Your task to perform on an android device: Do I have any events tomorrow? Image 0: 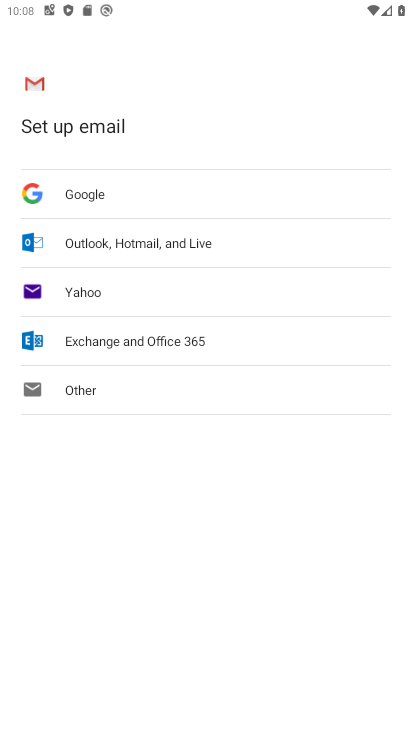
Step 0: press home button
Your task to perform on an android device: Do I have any events tomorrow? Image 1: 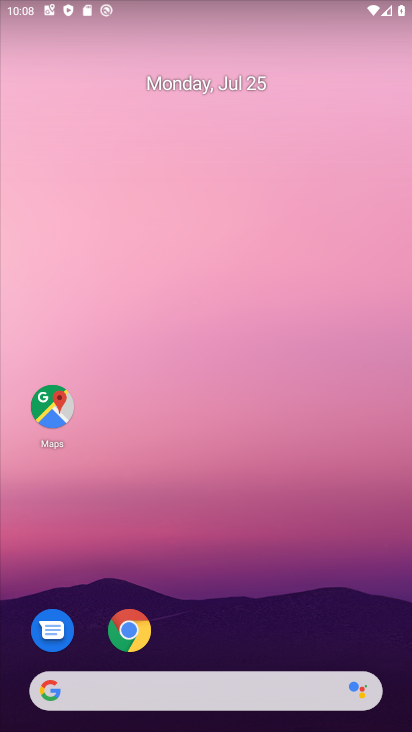
Step 1: drag from (348, 586) to (345, 74)
Your task to perform on an android device: Do I have any events tomorrow? Image 2: 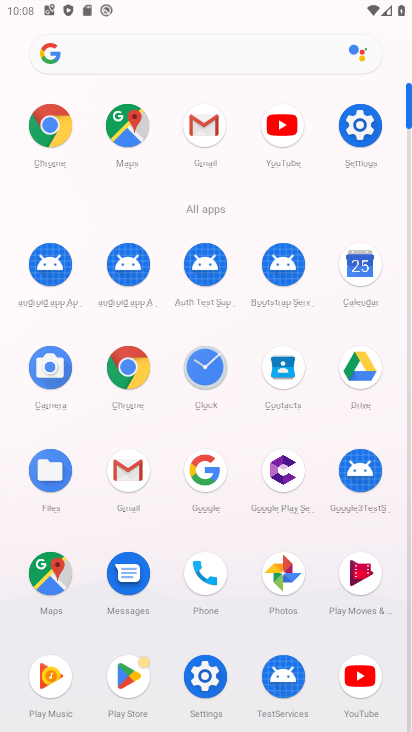
Step 2: click (363, 268)
Your task to perform on an android device: Do I have any events tomorrow? Image 3: 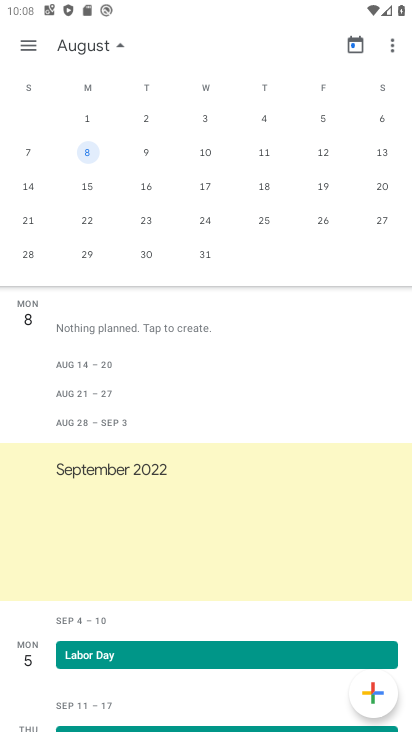
Step 3: drag from (267, 424) to (280, 192)
Your task to perform on an android device: Do I have any events tomorrow? Image 4: 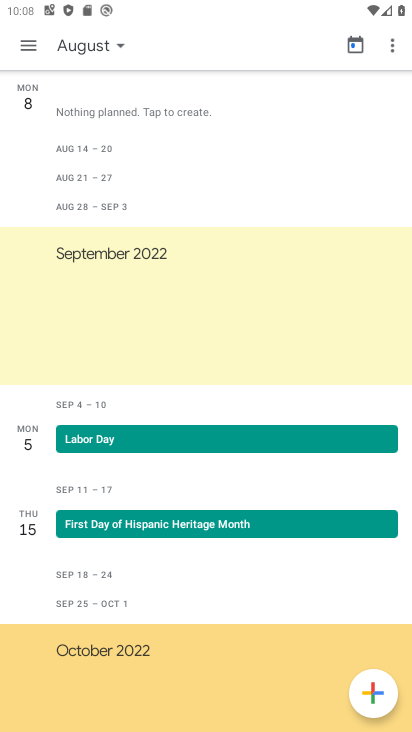
Step 4: drag from (218, 99) to (211, 358)
Your task to perform on an android device: Do I have any events tomorrow? Image 5: 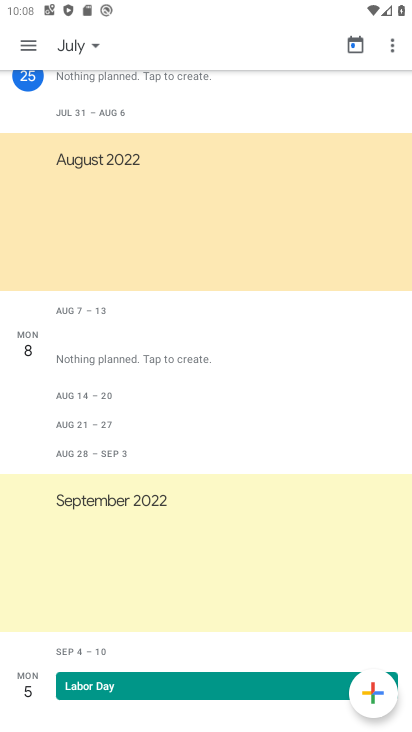
Step 5: click (95, 36)
Your task to perform on an android device: Do I have any events tomorrow? Image 6: 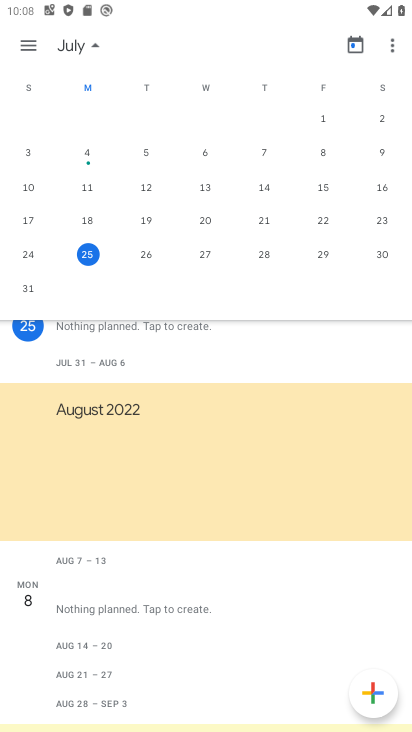
Step 6: click (204, 259)
Your task to perform on an android device: Do I have any events tomorrow? Image 7: 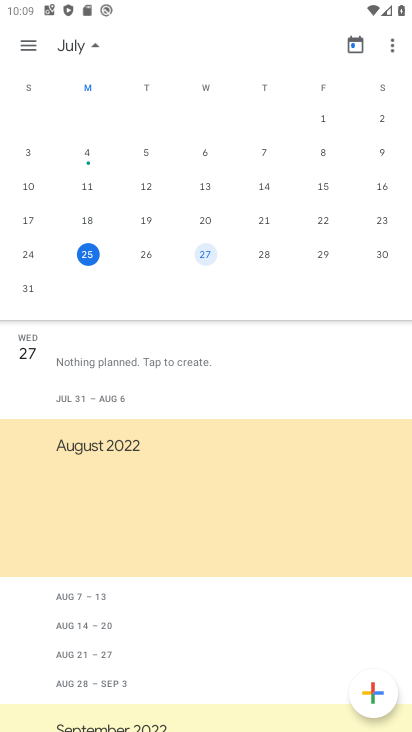
Step 7: task complete